Your task to perform on an android device: toggle pop-ups in chrome Image 0: 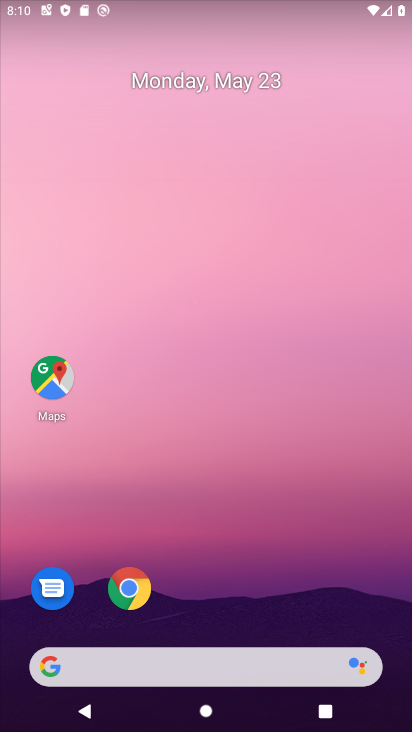
Step 0: click (136, 596)
Your task to perform on an android device: toggle pop-ups in chrome Image 1: 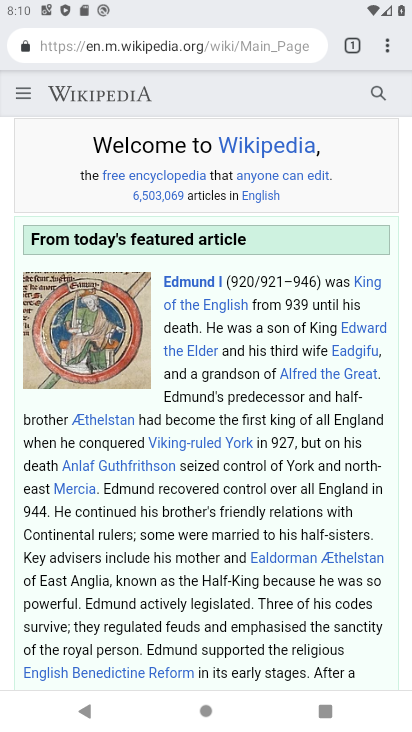
Step 1: click (389, 46)
Your task to perform on an android device: toggle pop-ups in chrome Image 2: 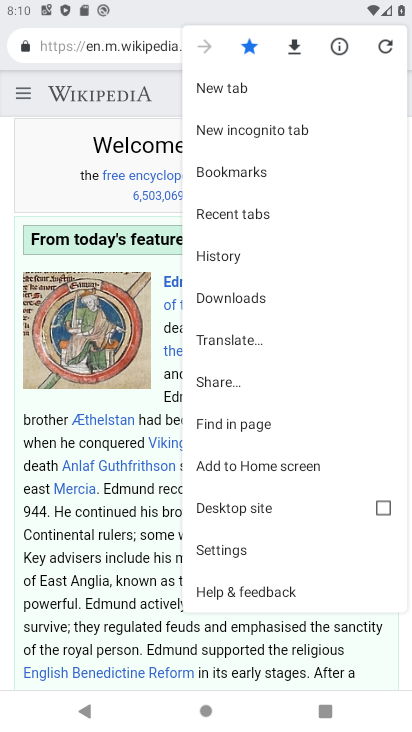
Step 2: click (217, 549)
Your task to perform on an android device: toggle pop-ups in chrome Image 3: 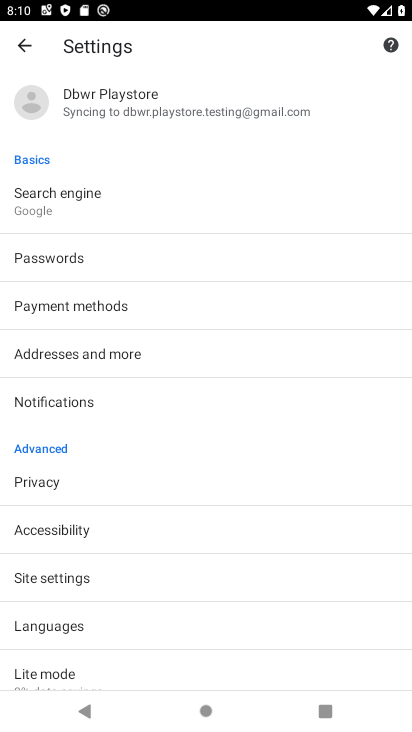
Step 3: click (82, 583)
Your task to perform on an android device: toggle pop-ups in chrome Image 4: 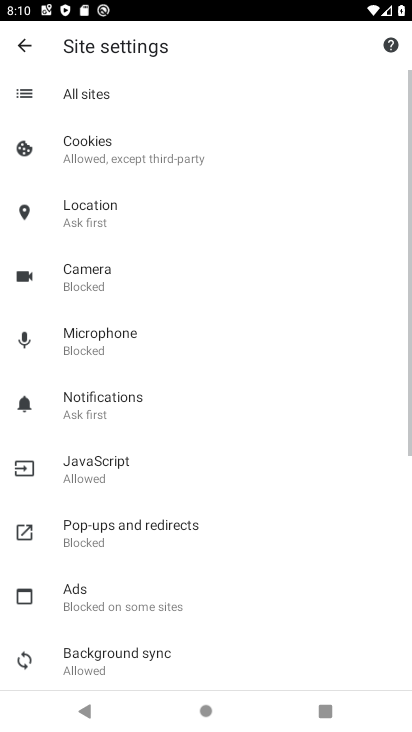
Step 4: click (120, 532)
Your task to perform on an android device: toggle pop-ups in chrome Image 5: 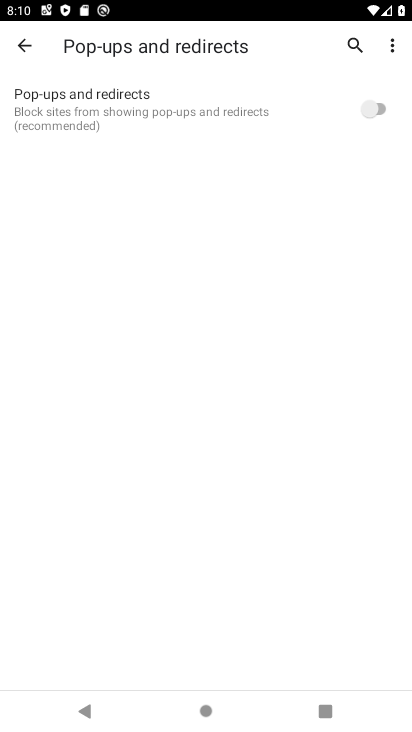
Step 5: click (379, 108)
Your task to perform on an android device: toggle pop-ups in chrome Image 6: 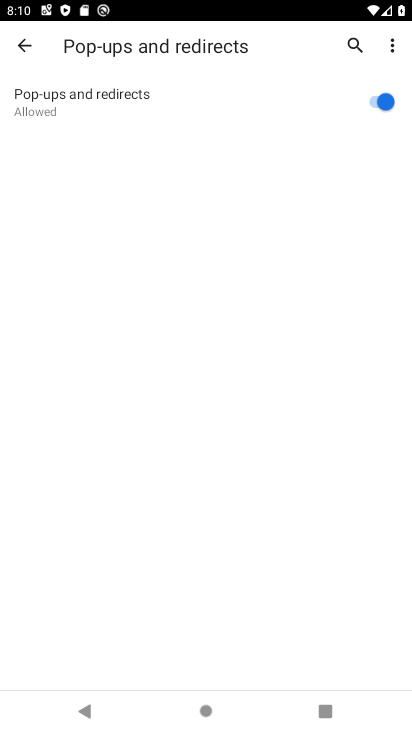
Step 6: task complete